Your task to perform on an android device: install app "Microsoft Outlook" Image 0: 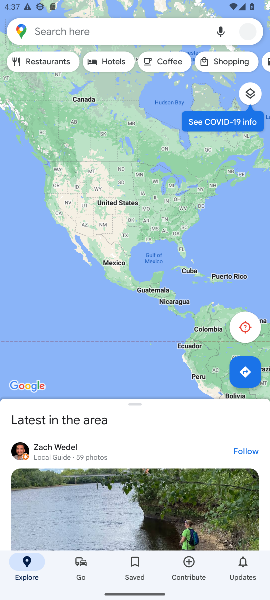
Step 0: press home button
Your task to perform on an android device: install app "Microsoft Outlook" Image 1: 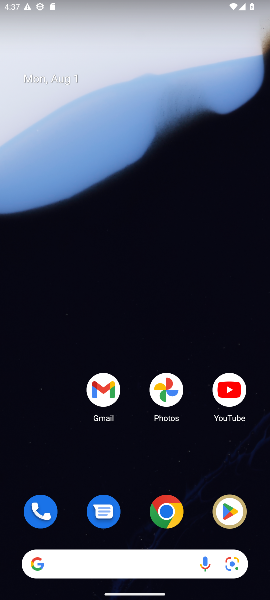
Step 1: click (237, 500)
Your task to perform on an android device: install app "Microsoft Outlook" Image 2: 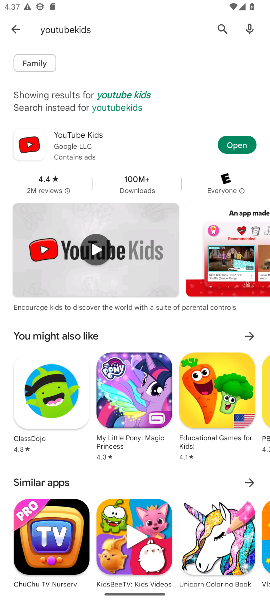
Step 2: click (18, 30)
Your task to perform on an android device: install app "Microsoft Outlook" Image 3: 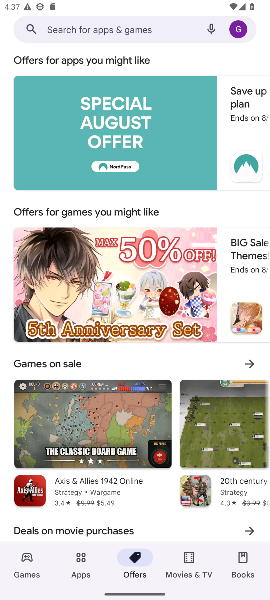
Step 3: click (76, 29)
Your task to perform on an android device: install app "Microsoft Outlook" Image 4: 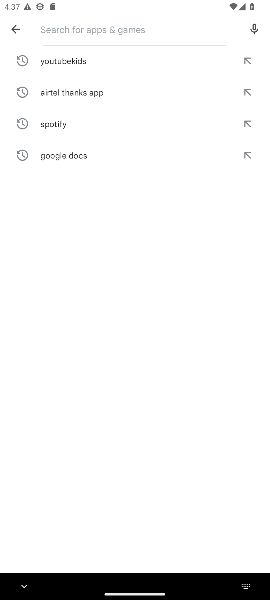
Step 4: type "Microsoft Outlook"
Your task to perform on an android device: install app "Microsoft Outlook" Image 5: 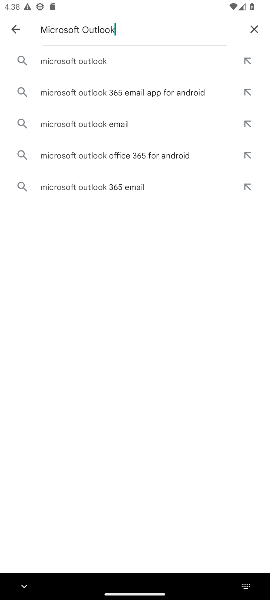
Step 5: click (91, 64)
Your task to perform on an android device: install app "Microsoft Outlook" Image 6: 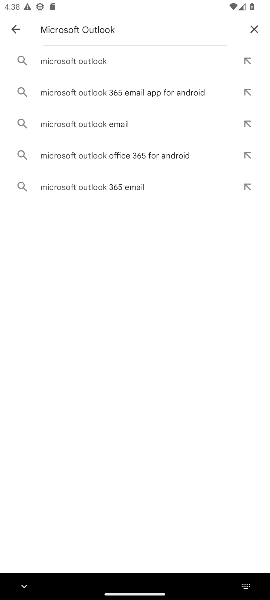
Step 6: click (81, 61)
Your task to perform on an android device: install app "Microsoft Outlook" Image 7: 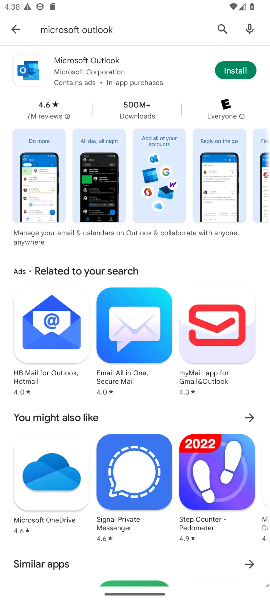
Step 7: task complete